Your task to perform on an android device: Go to battery settings Image 0: 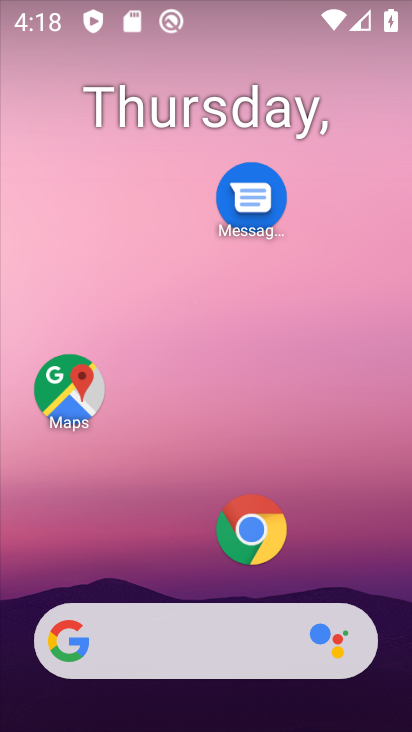
Step 0: drag from (155, 526) to (215, 133)
Your task to perform on an android device: Go to battery settings Image 1: 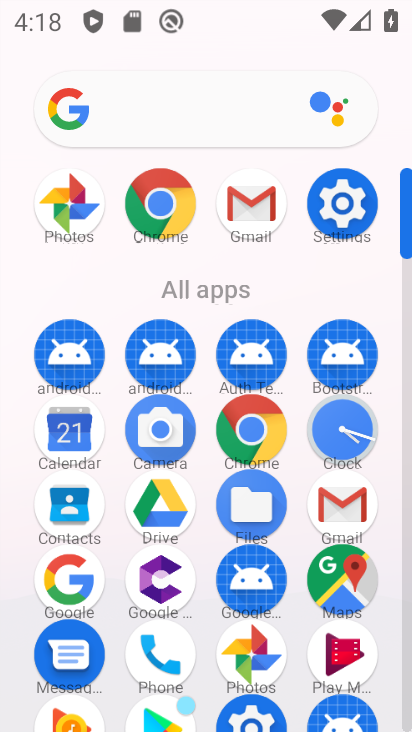
Step 1: click (340, 191)
Your task to perform on an android device: Go to battery settings Image 2: 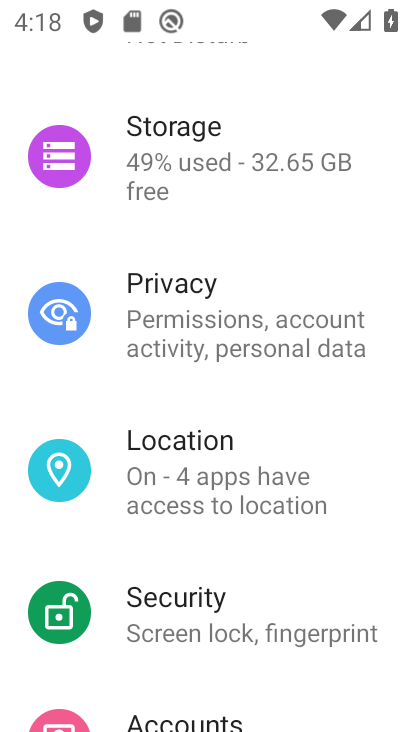
Step 2: drag from (194, 630) to (336, 81)
Your task to perform on an android device: Go to battery settings Image 3: 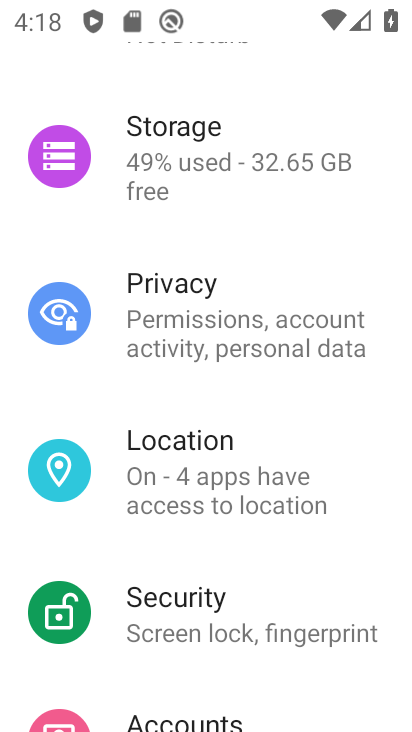
Step 3: drag from (213, 654) to (279, 163)
Your task to perform on an android device: Go to battery settings Image 4: 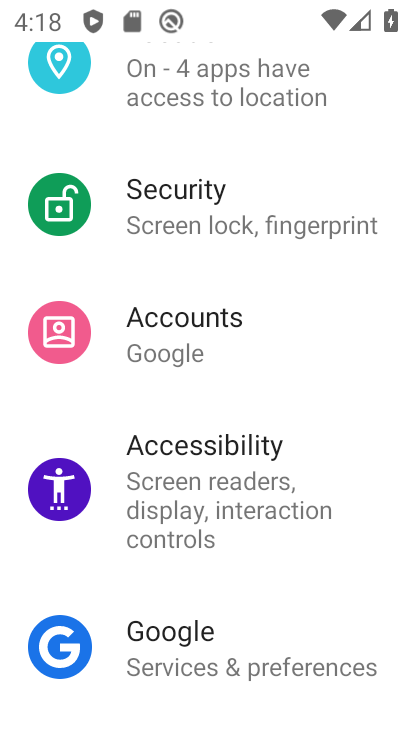
Step 4: drag from (199, 672) to (355, 52)
Your task to perform on an android device: Go to battery settings Image 5: 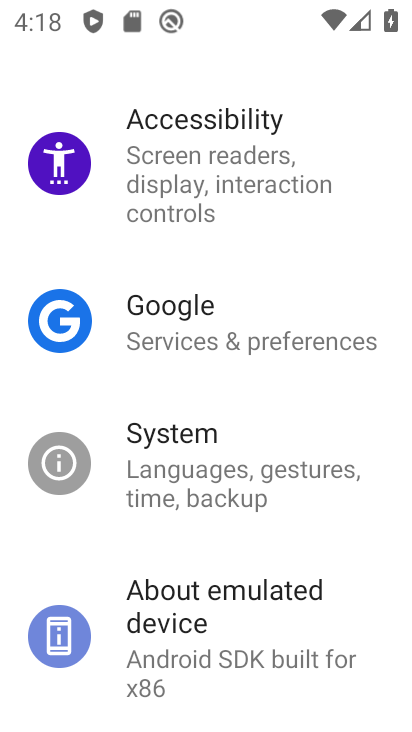
Step 5: drag from (280, 156) to (172, 725)
Your task to perform on an android device: Go to battery settings Image 6: 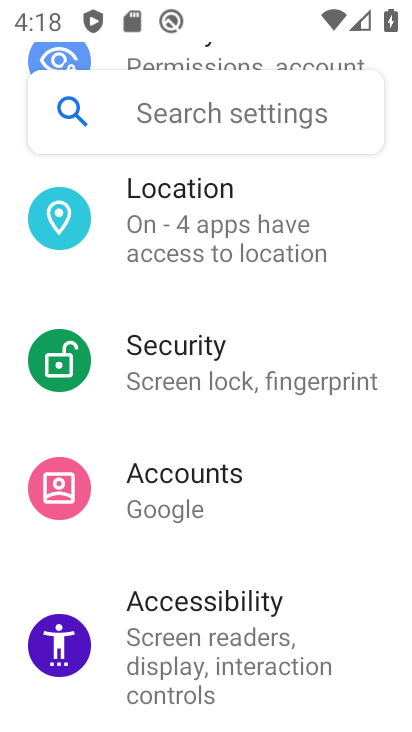
Step 6: drag from (242, 222) to (150, 726)
Your task to perform on an android device: Go to battery settings Image 7: 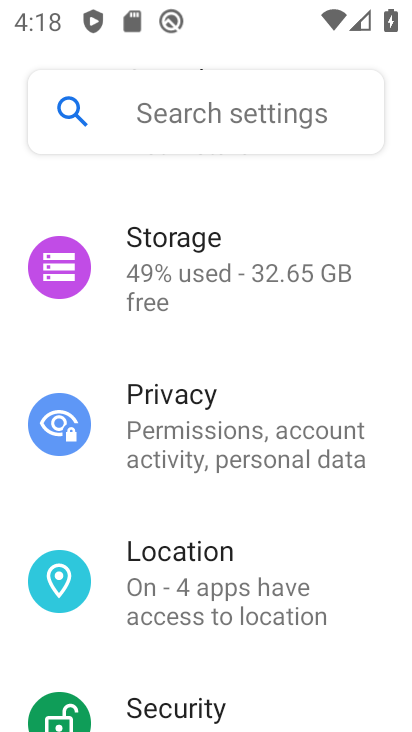
Step 7: drag from (234, 290) to (168, 726)
Your task to perform on an android device: Go to battery settings Image 8: 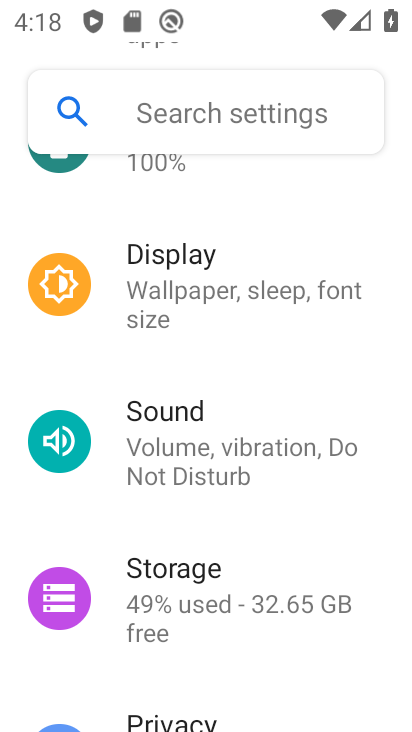
Step 8: drag from (251, 315) to (200, 637)
Your task to perform on an android device: Go to battery settings Image 9: 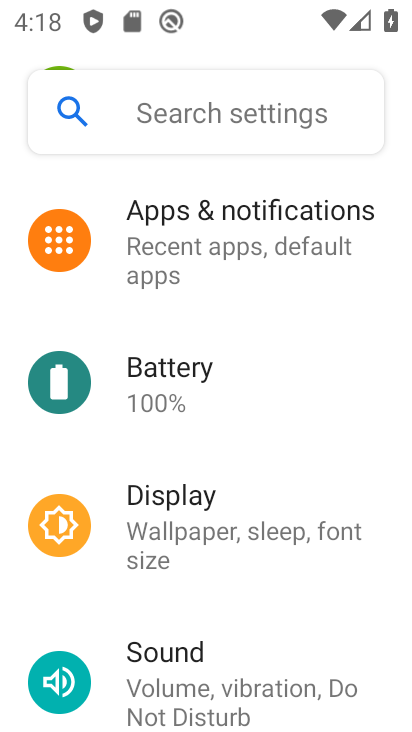
Step 9: click (183, 407)
Your task to perform on an android device: Go to battery settings Image 10: 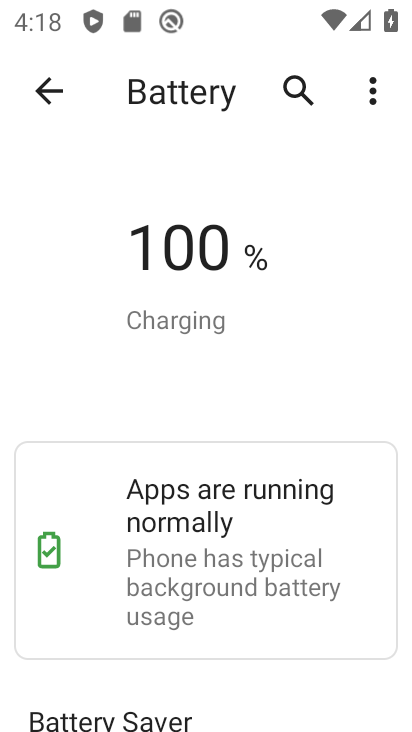
Step 10: task complete